Your task to perform on an android device: Search for vegetarian restaurants on Maps Image 0: 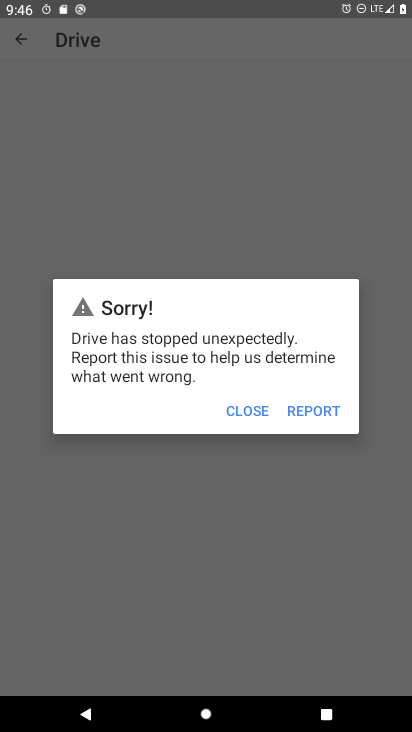
Step 0: press home button
Your task to perform on an android device: Search for vegetarian restaurants on Maps Image 1: 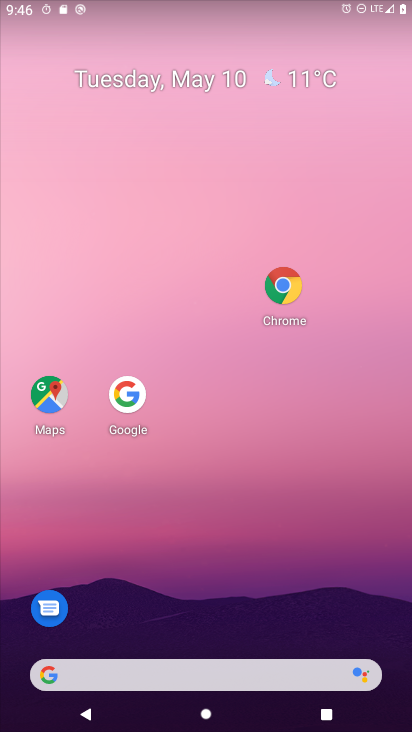
Step 1: click (51, 393)
Your task to perform on an android device: Search for vegetarian restaurants on Maps Image 2: 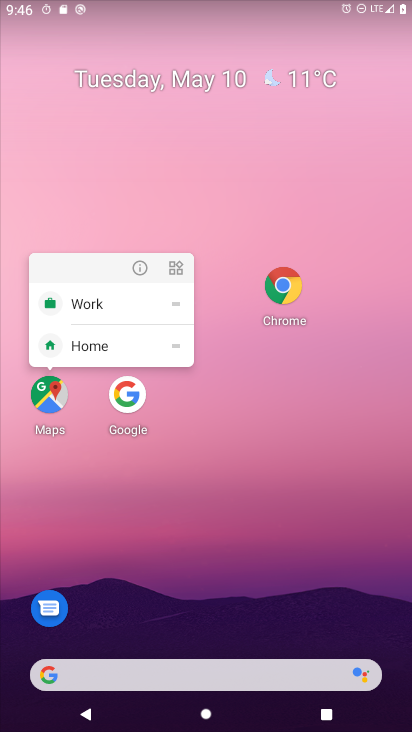
Step 2: click (55, 408)
Your task to perform on an android device: Search for vegetarian restaurants on Maps Image 3: 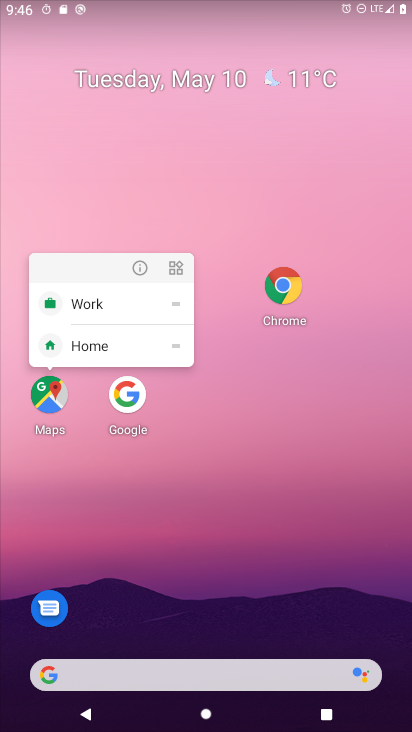
Step 3: click (50, 400)
Your task to perform on an android device: Search for vegetarian restaurants on Maps Image 4: 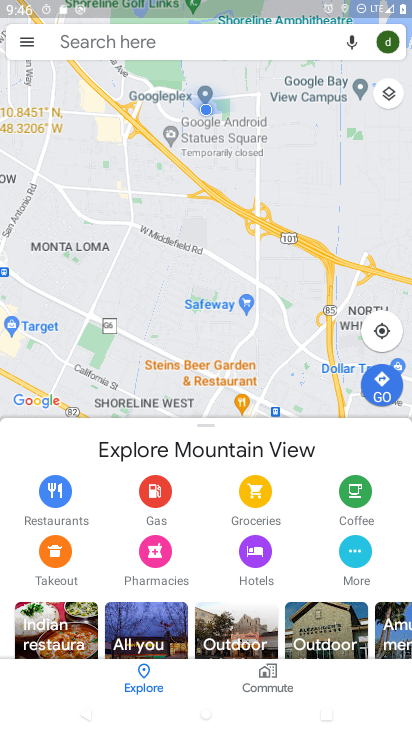
Step 4: click (183, 42)
Your task to perform on an android device: Search for vegetarian restaurants on Maps Image 5: 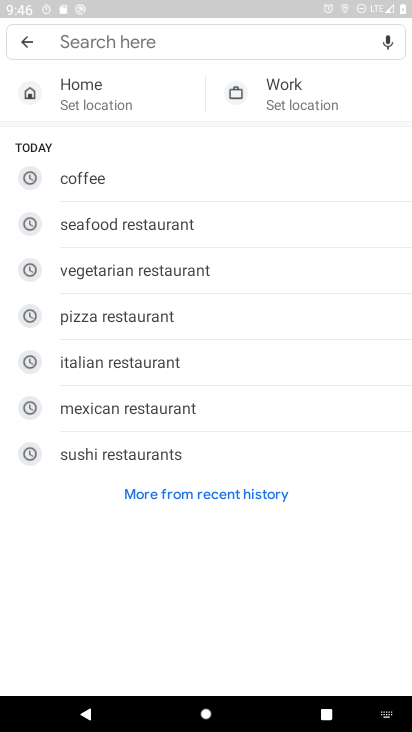
Step 5: click (164, 271)
Your task to perform on an android device: Search for vegetarian restaurants on Maps Image 6: 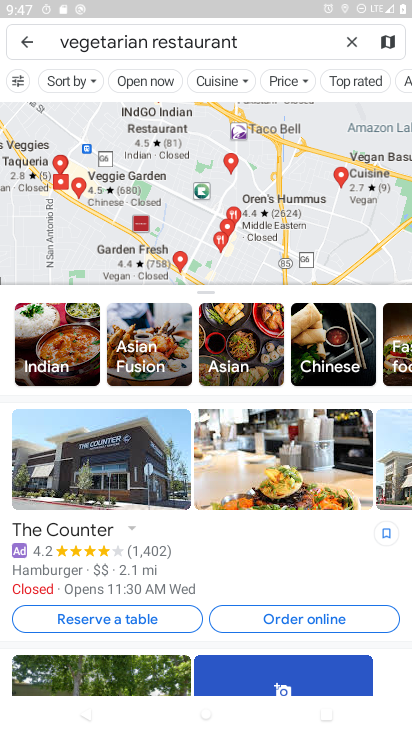
Step 6: task complete